Your task to perform on an android device: show emergency info Image 0: 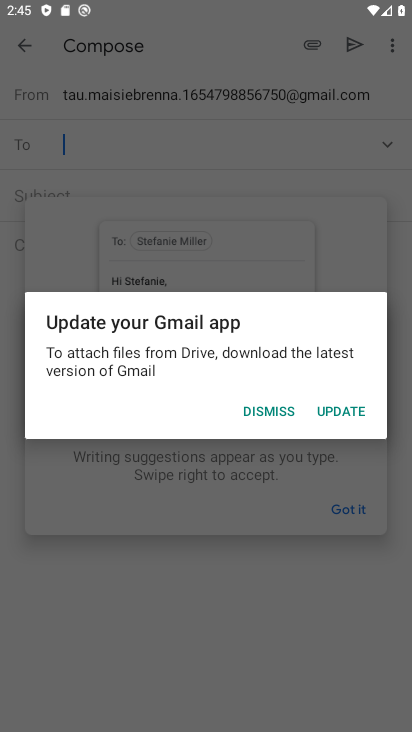
Step 0: press home button
Your task to perform on an android device: show emergency info Image 1: 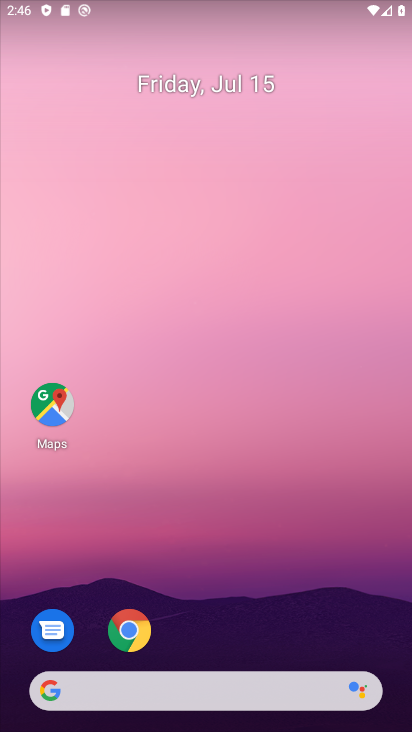
Step 1: drag from (127, 70) to (168, 36)
Your task to perform on an android device: show emergency info Image 2: 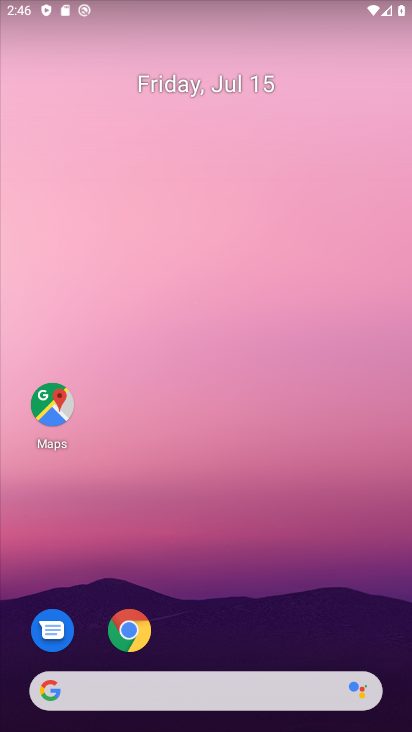
Step 2: drag from (269, 590) to (219, 146)
Your task to perform on an android device: show emergency info Image 3: 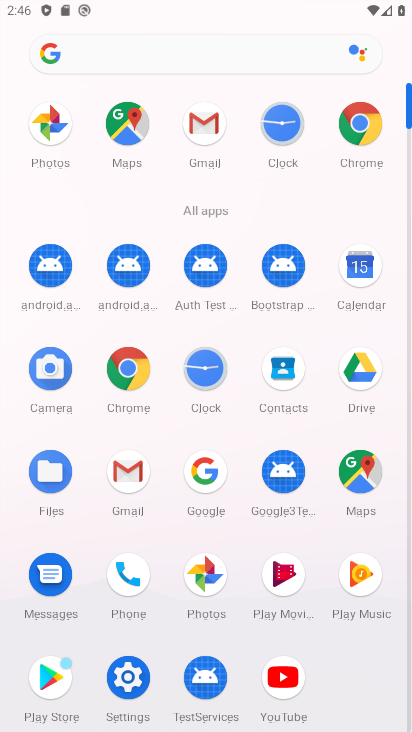
Step 3: click (138, 687)
Your task to perform on an android device: show emergency info Image 4: 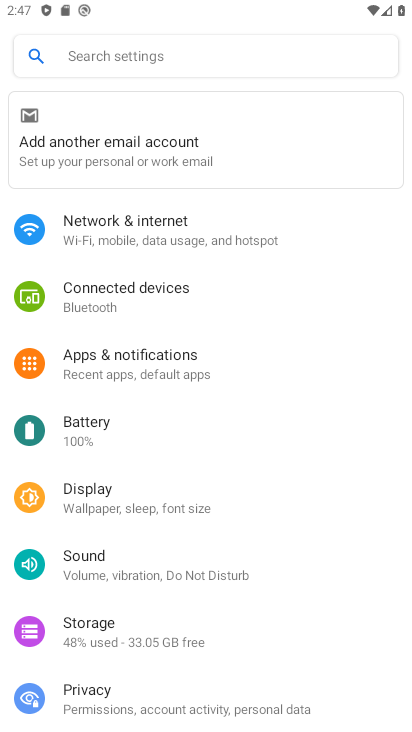
Step 4: drag from (281, 622) to (217, 342)
Your task to perform on an android device: show emergency info Image 5: 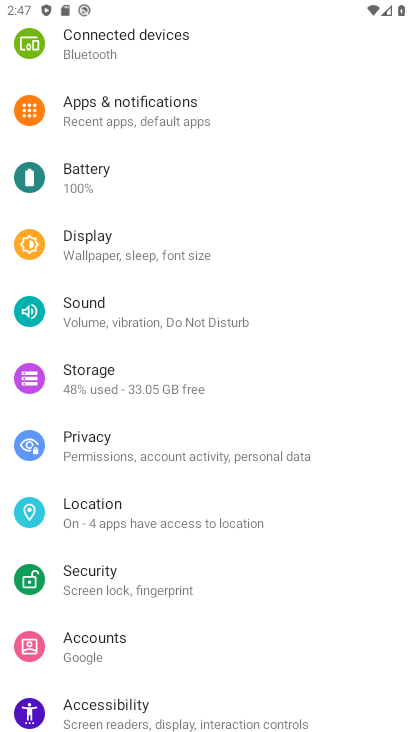
Step 5: drag from (331, 628) to (285, 227)
Your task to perform on an android device: show emergency info Image 6: 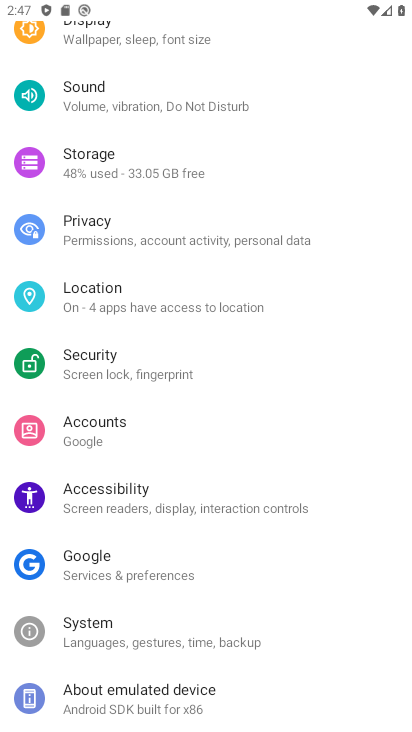
Step 6: click (157, 701)
Your task to perform on an android device: show emergency info Image 7: 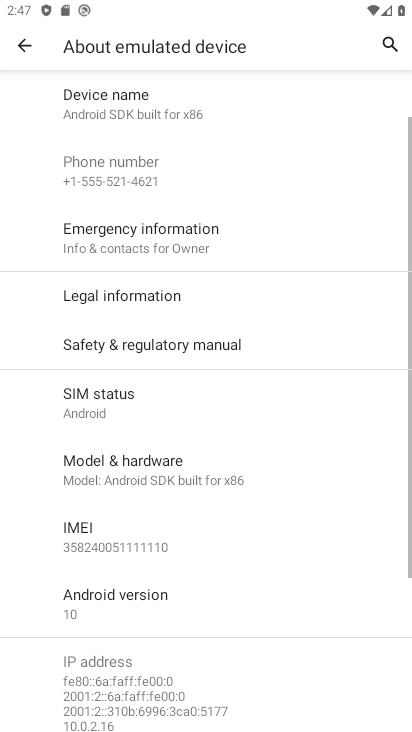
Step 7: click (137, 236)
Your task to perform on an android device: show emergency info Image 8: 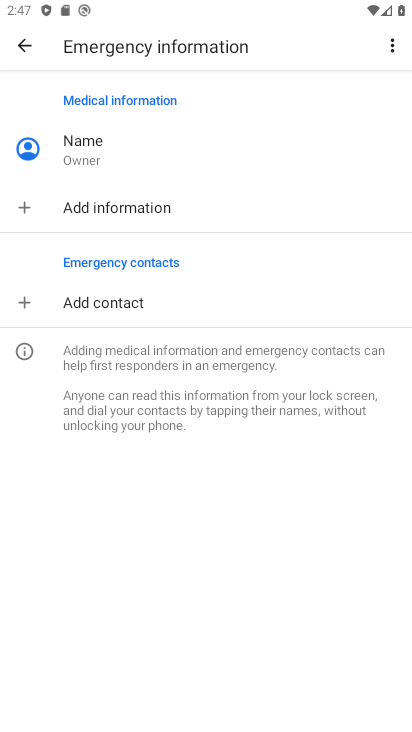
Step 8: task complete